Your task to perform on an android device: move an email to a new category in the gmail app Image 0: 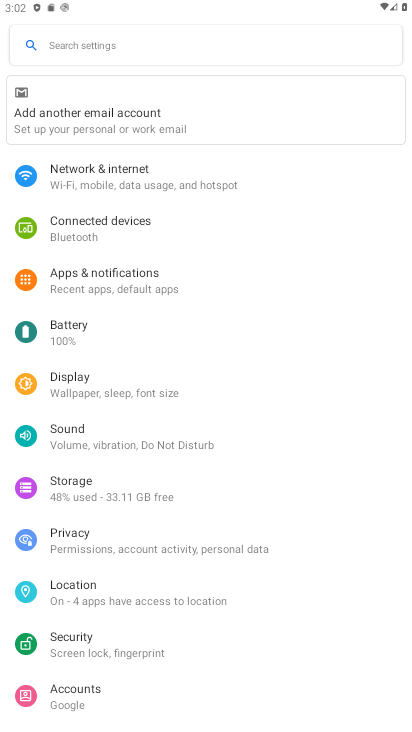
Step 0: press home button
Your task to perform on an android device: move an email to a new category in the gmail app Image 1: 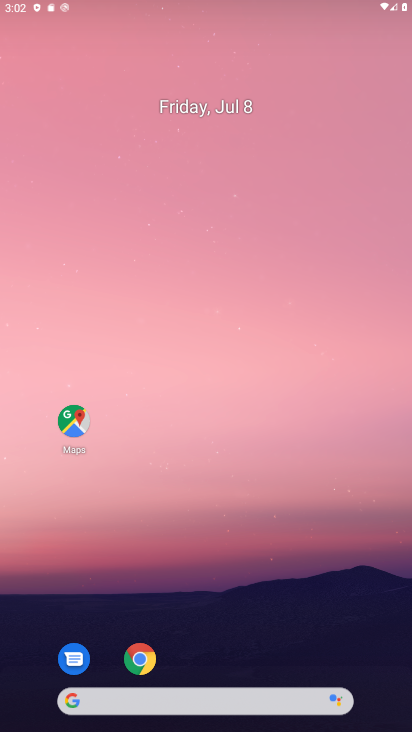
Step 1: drag from (208, 643) to (231, 184)
Your task to perform on an android device: move an email to a new category in the gmail app Image 2: 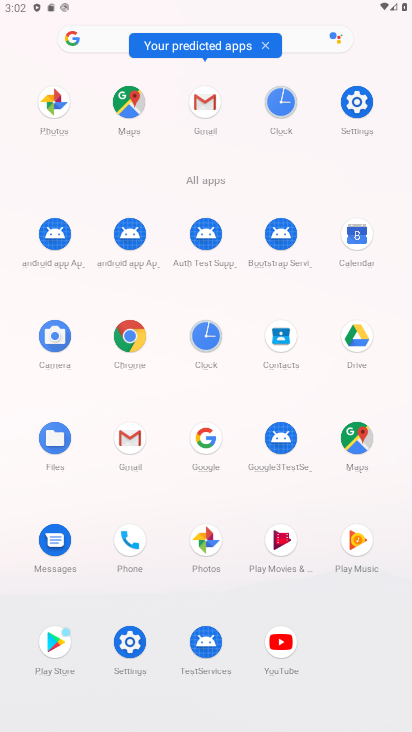
Step 2: click (204, 125)
Your task to perform on an android device: move an email to a new category in the gmail app Image 3: 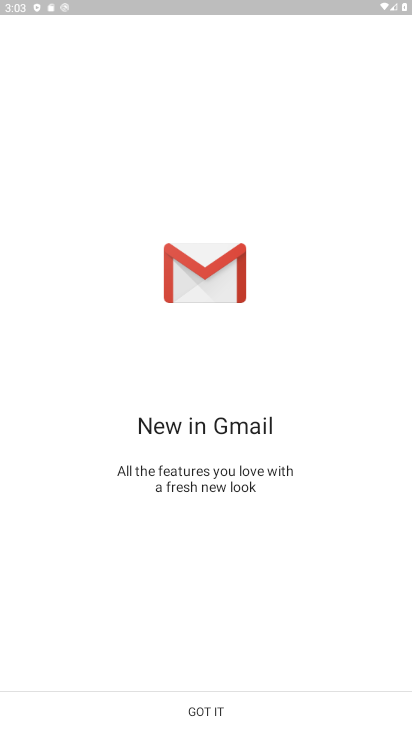
Step 3: click (191, 702)
Your task to perform on an android device: move an email to a new category in the gmail app Image 4: 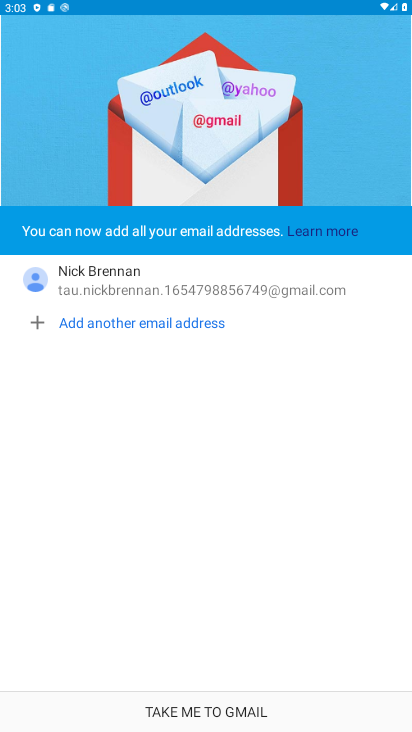
Step 4: click (191, 702)
Your task to perform on an android device: move an email to a new category in the gmail app Image 5: 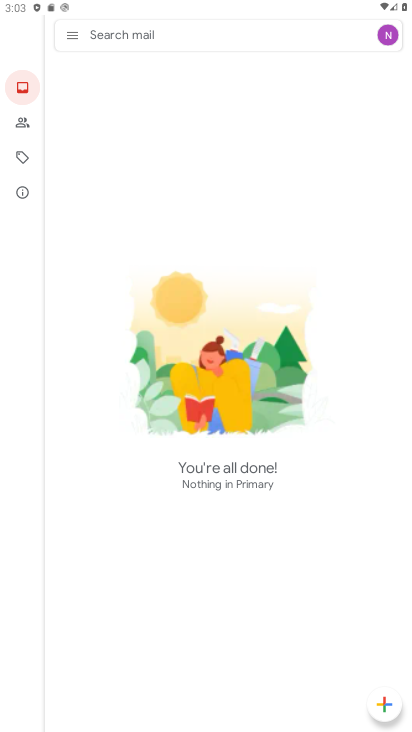
Step 5: click (70, 39)
Your task to perform on an android device: move an email to a new category in the gmail app Image 6: 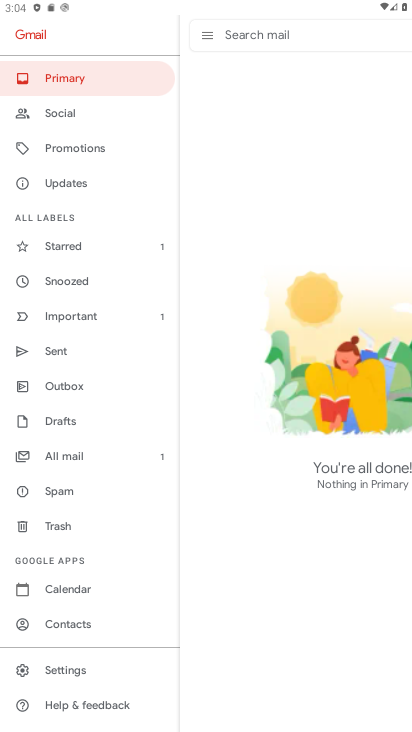
Step 6: task complete